Your task to perform on an android device: Go to Wikipedia Image 0: 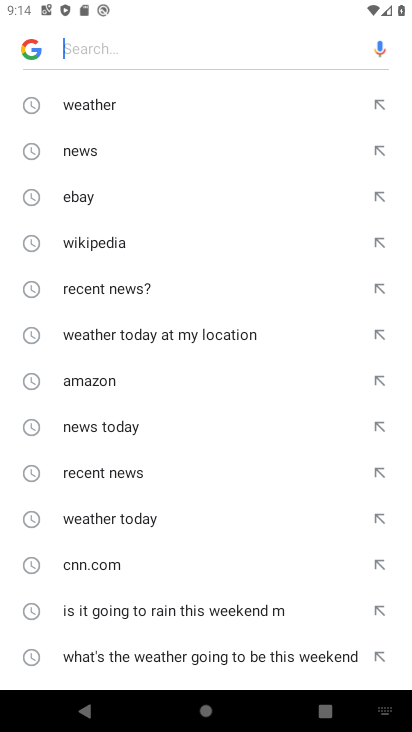
Step 0: press home button
Your task to perform on an android device: Go to Wikipedia Image 1: 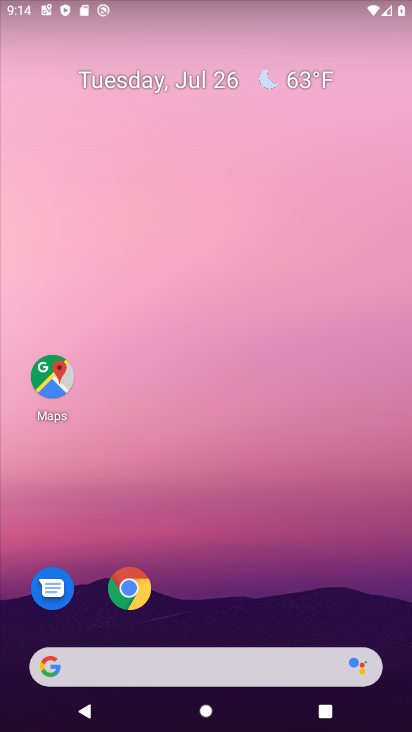
Step 1: click (111, 588)
Your task to perform on an android device: Go to Wikipedia Image 2: 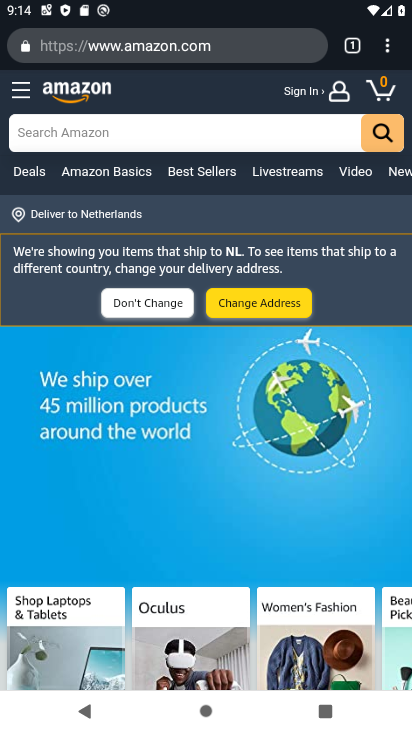
Step 2: click (380, 50)
Your task to perform on an android device: Go to Wikipedia Image 3: 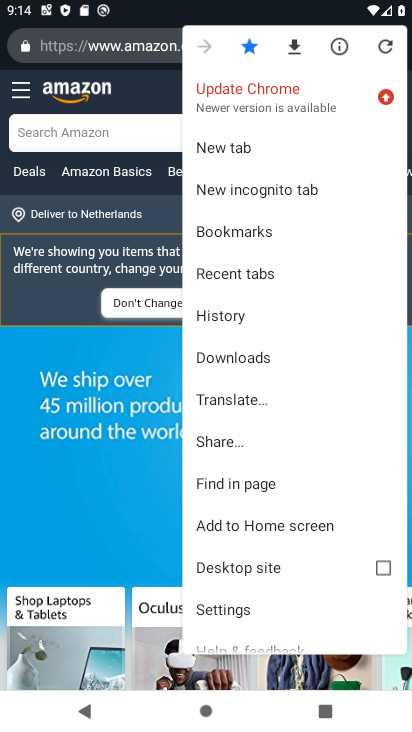
Step 3: click (192, 148)
Your task to perform on an android device: Go to Wikipedia Image 4: 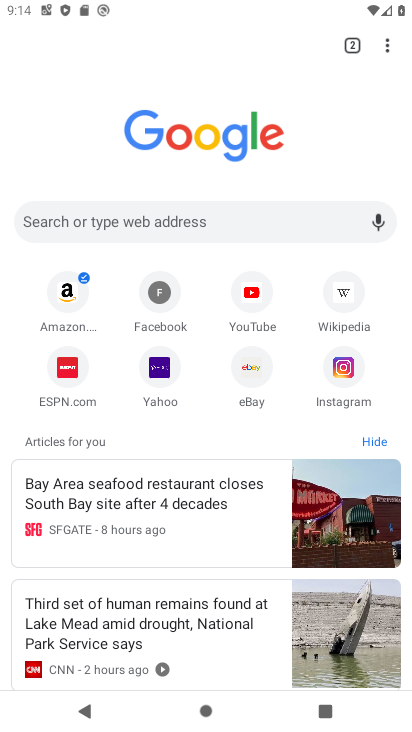
Step 4: click (341, 303)
Your task to perform on an android device: Go to Wikipedia Image 5: 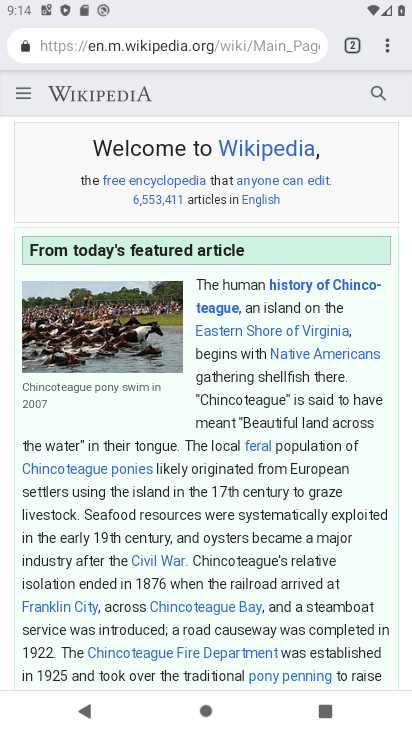
Step 5: task complete